Your task to perform on an android device: Open internet settings Image 0: 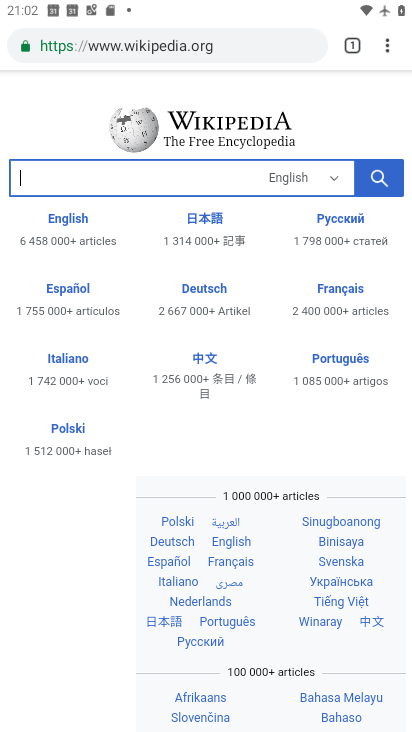
Step 0: press home button
Your task to perform on an android device: Open internet settings Image 1: 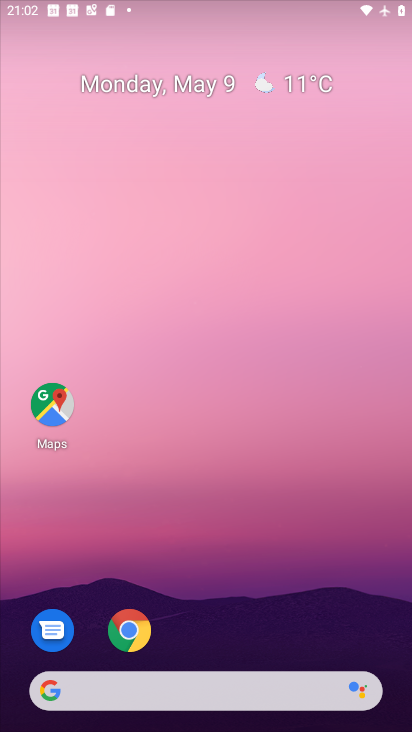
Step 1: drag from (258, 428) to (285, 4)
Your task to perform on an android device: Open internet settings Image 2: 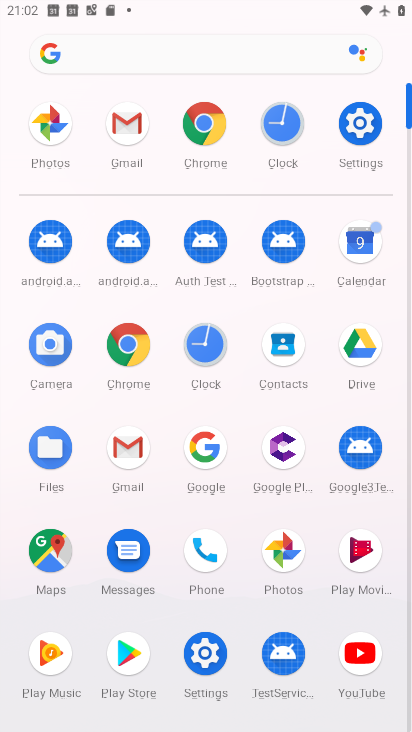
Step 2: click (350, 120)
Your task to perform on an android device: Open internet settings Image 3: 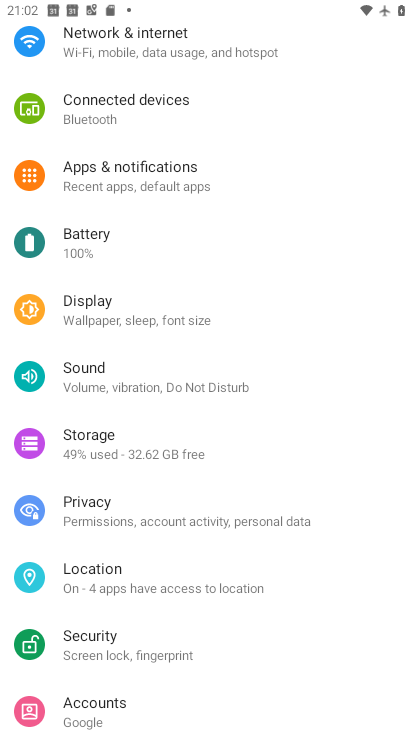
Step 3: click (195, 47)
Your task to perform on an android device: Open internet settings Image 4: 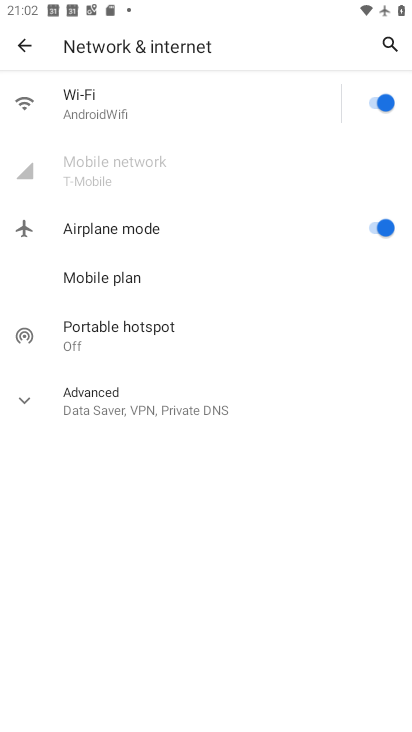
Step 4: task complete